Your task to perform on an android device: Install the Pandora app Image 0: 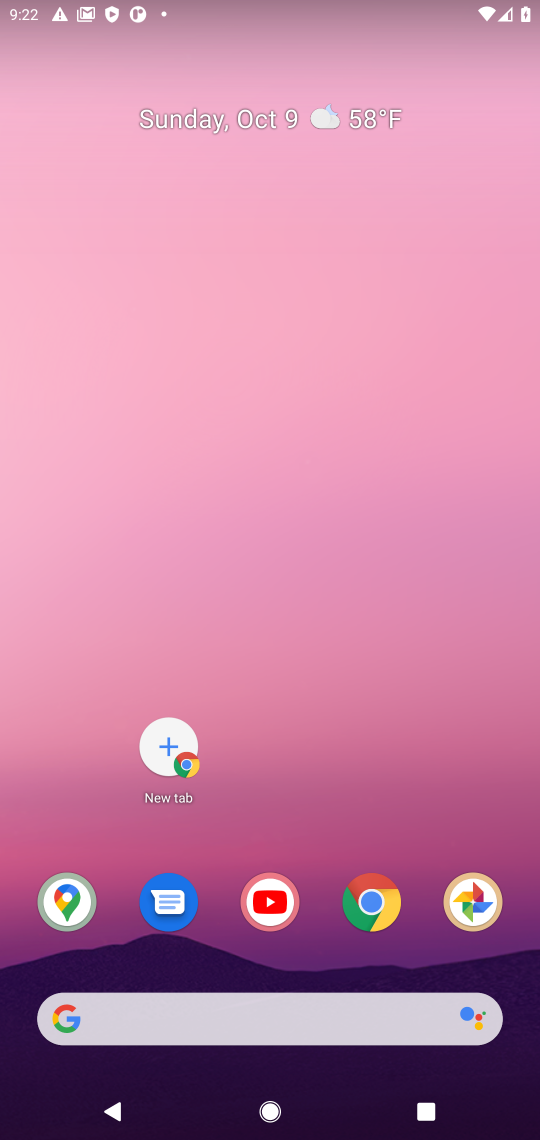
Step 0: drag from (468, 825) to (406, 281)
Your task to perform on an android device: Install the Pandora app Image 1: 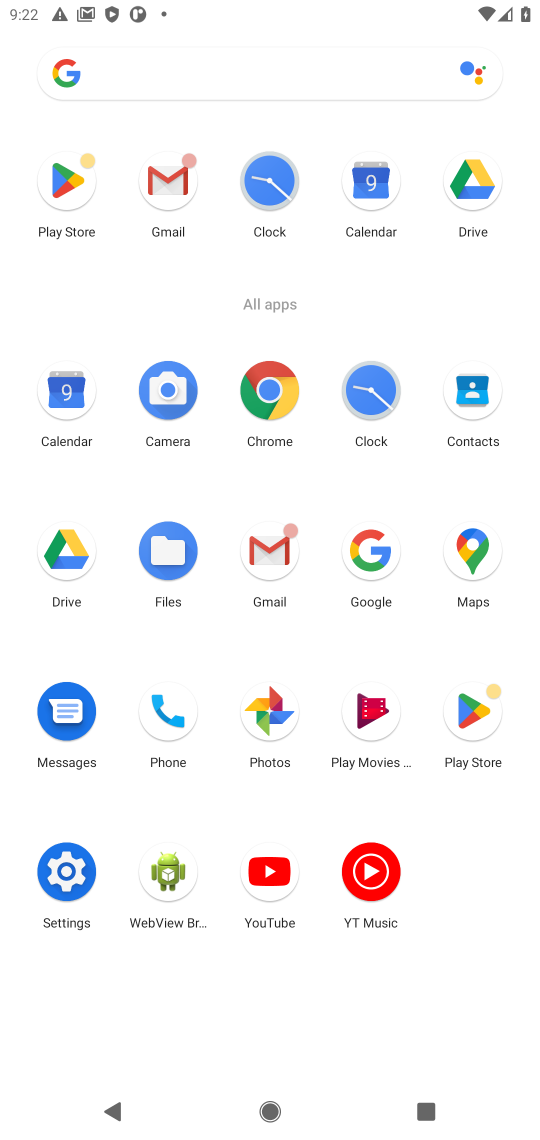
Step 1: click (63, 197)
Your task to perform on an android device: Install the Pandora app Image 2: 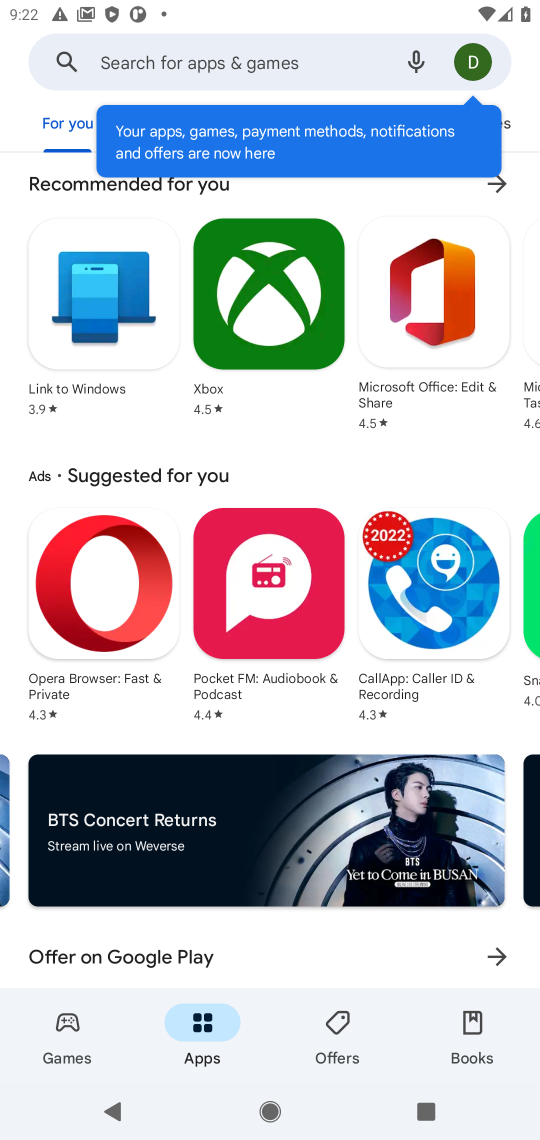
Step 2: click (141, 48)
Your task to perform on an android device: Install the Pandora app Image 3: 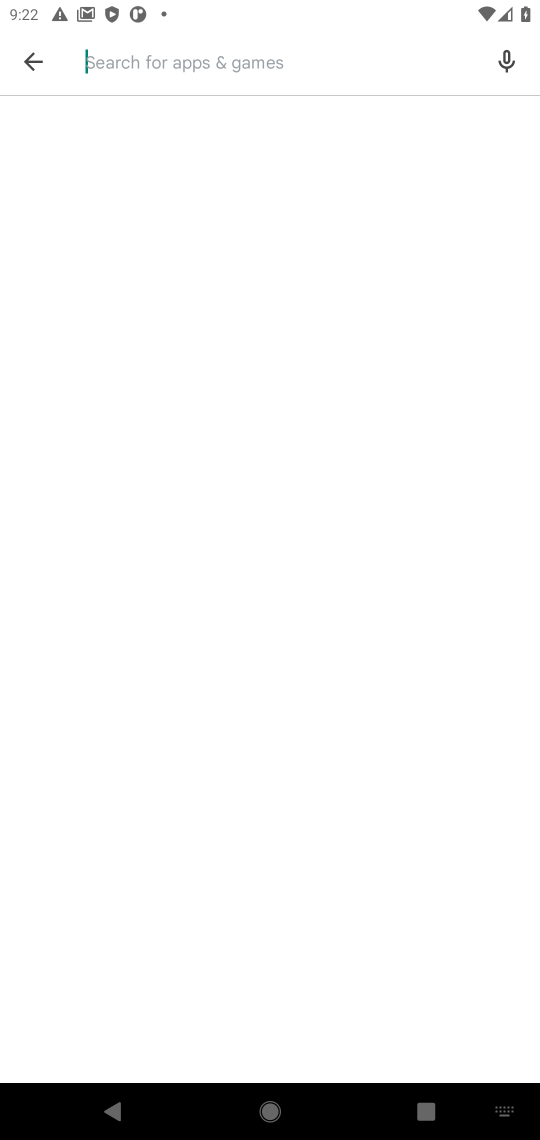
Step 3: click (192, 66)
Your task to perform on an android device: Install the Pandora app Image 4: 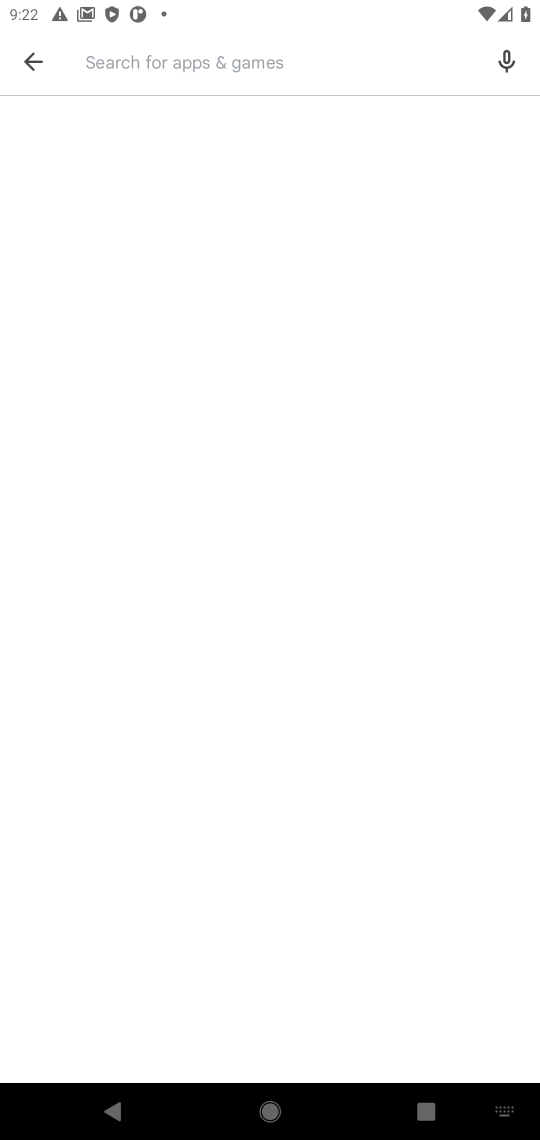
Step 4: type "Pandora"
Your task to perform on an android device: Install the Pandora app Image 5: 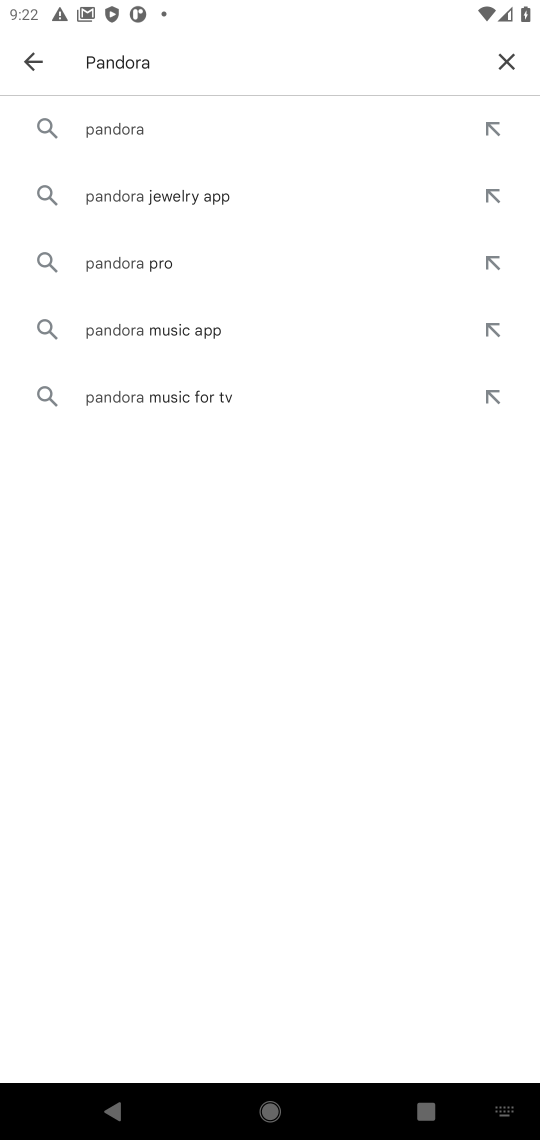
Step 5: click (138, 121)
Your task to perform on an android device: Install the Pandora app Image 6: 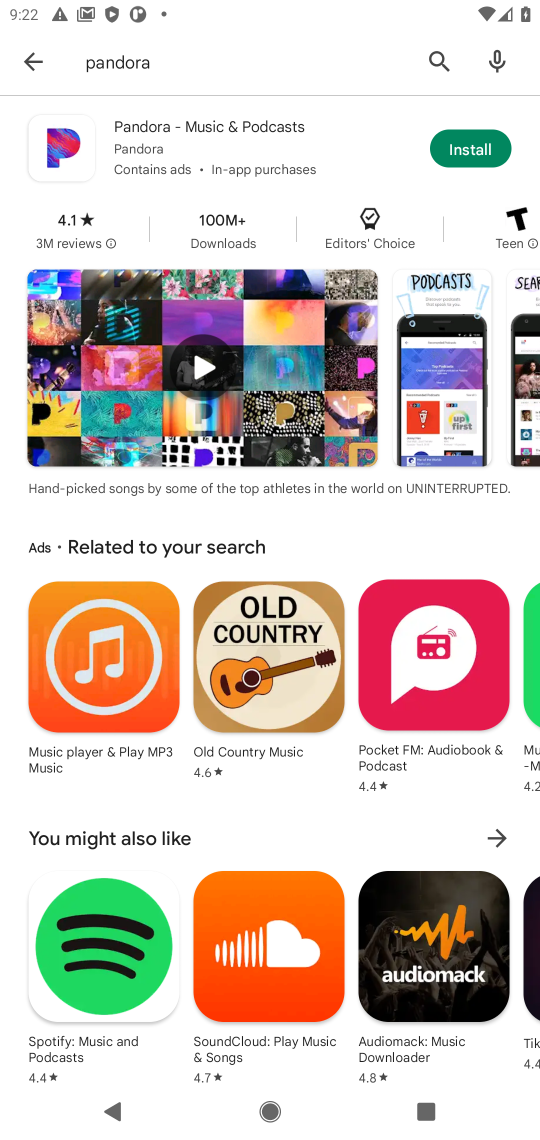
Step 6: click (464, 143)
Your task to perform on an android device: Install the Pandora app Image 7: 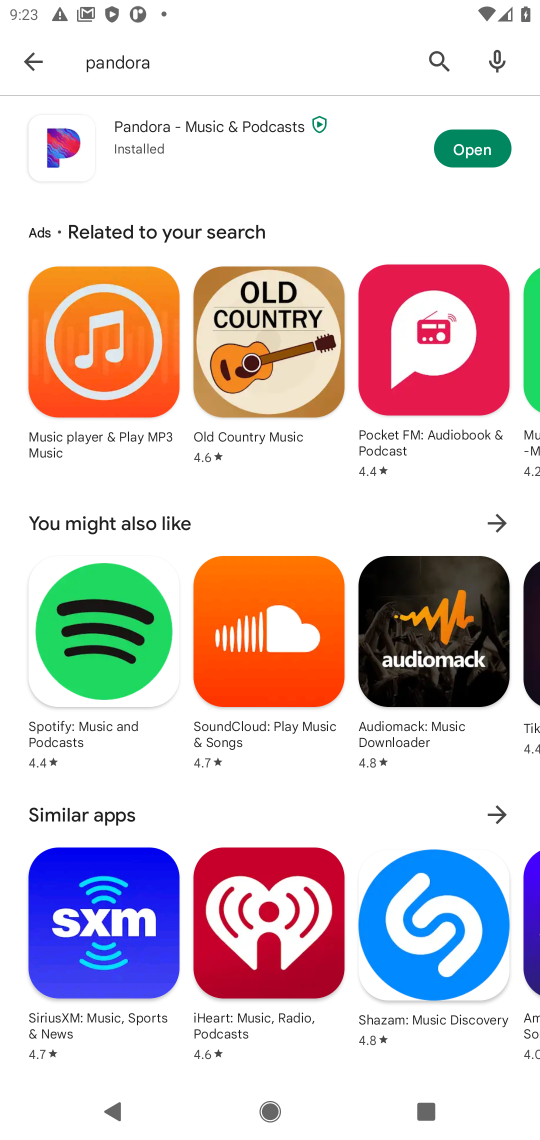
Step 7: task complete